Your task to perform on an android device: turn on showing notifications on the lock screen Image 0: 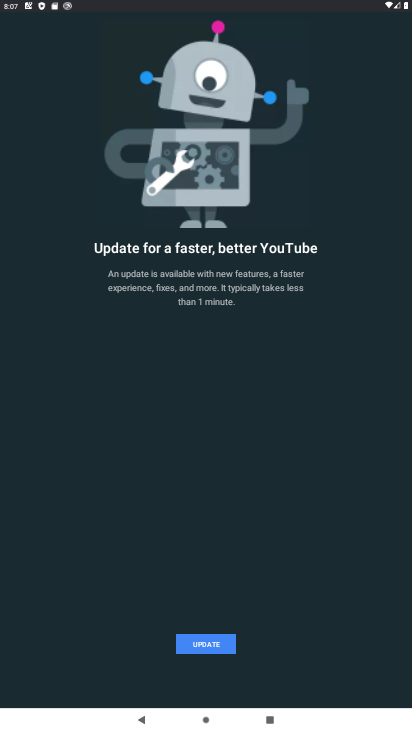
Step 0: press home button
Your task to perform on an android device: turn on showing notifications on the lock screen Image 1: 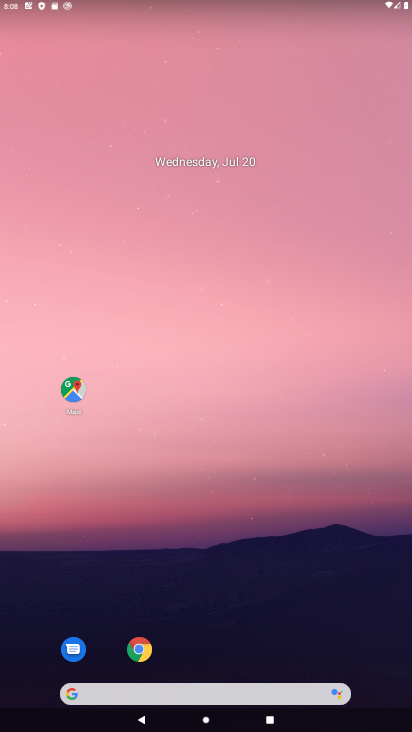
Step 1: drag from (205, 695) to (223, 179)
Your task to perform on an android device: turn on showing notifications on the lock screen Image 2: 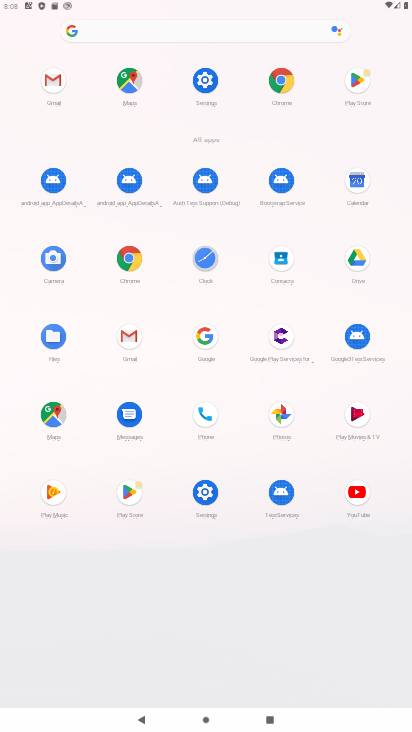
Step 2: click (205, 79)
Your task to perform on an android device: turn on showing notifications on the lock screen Image 3: 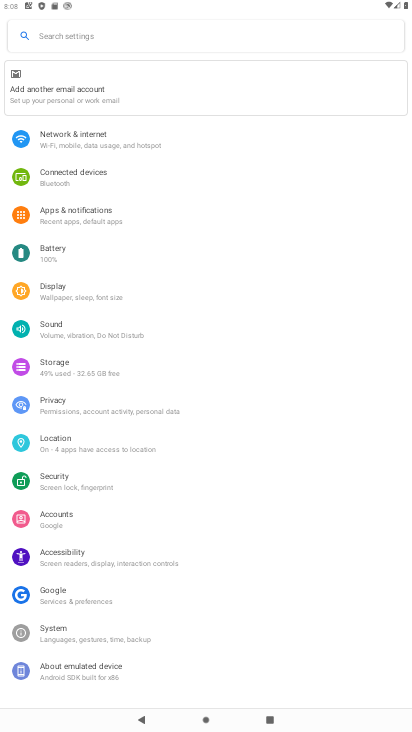
Step 3: click (85, 216)
Your task to perform on an android device: turn on showing notifications on the lock screen Image 4: 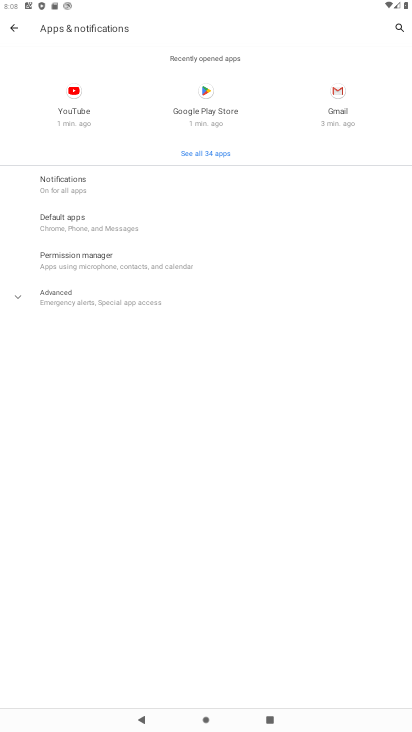
Step 4: click (69, 182)
Your task to perform on an android device: turn on showing notifications on the lock screen Image 5: 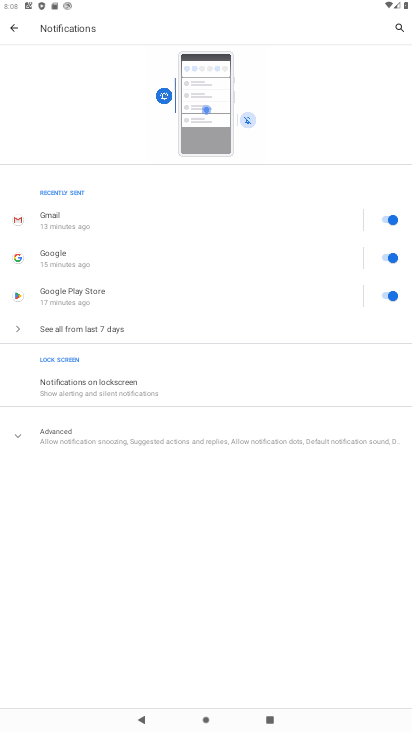
Step 5: click (63, 383)
Your task to perform on an android device: turn on showing notifications on the lock screen Image 6: 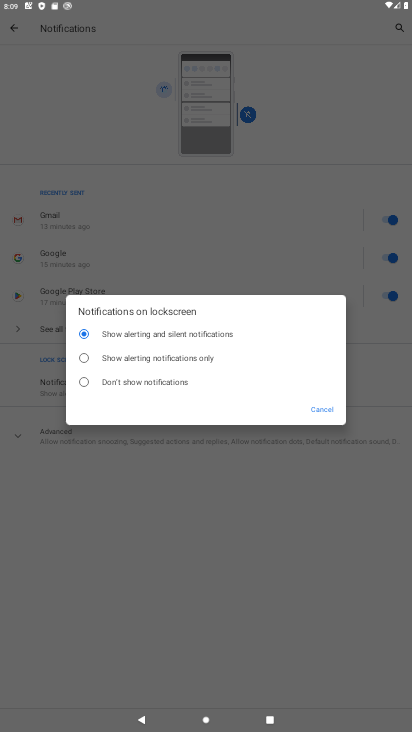
Step 6: click (84, 332)
Your task to perform on an android device: turn on showing notifications on the lock screen Image 7: 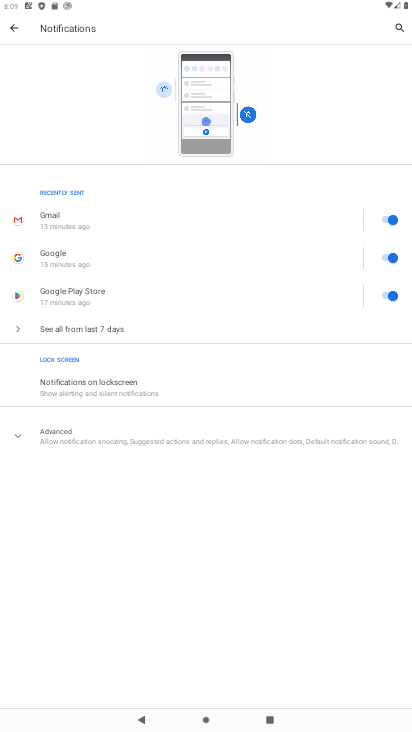
Step 7: task complete